Your task to perform on an android device: Check the news Image 0: 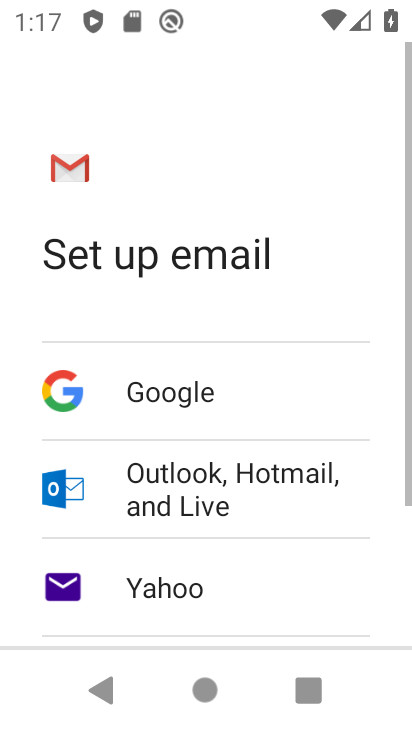
Step 0: press home button
Your task to perform on an android device: Check the news Image 1: 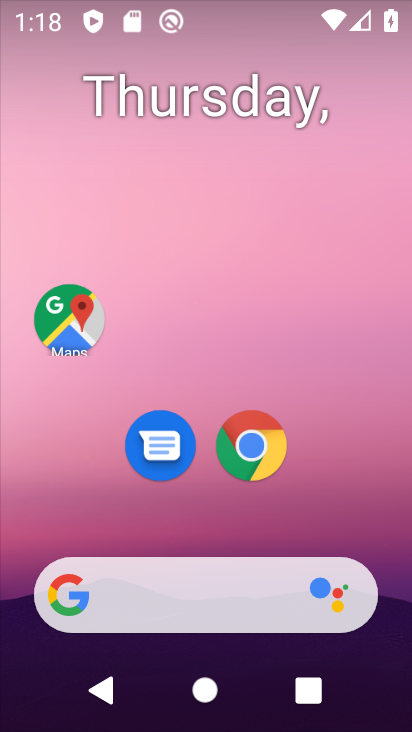
Step 1: click (190, 569)
Your task to perform on an android device: Check the news Image 2: 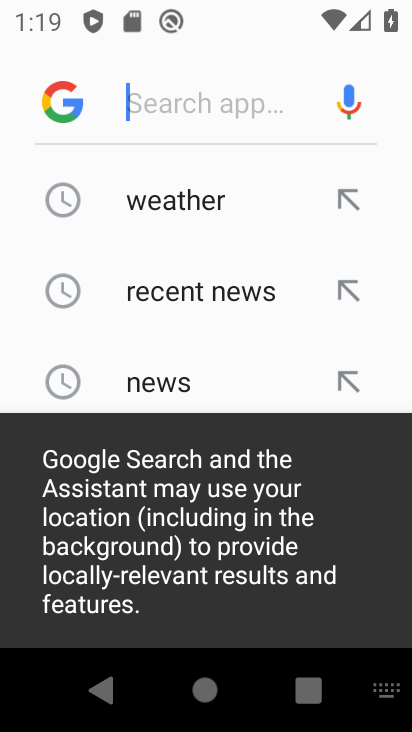
Step 2: click (191, 390)
Your task to perform on an android device: Check the news Image 3: 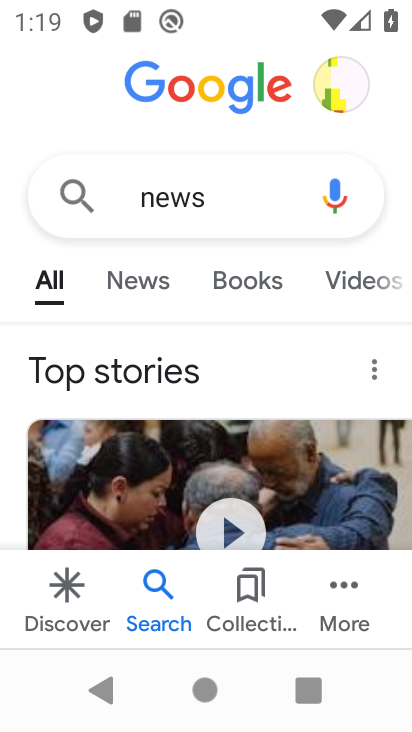
Step 3: task complete